Your task to perform on an android device: Search for vegetarian restaurants on Maps Image 0: 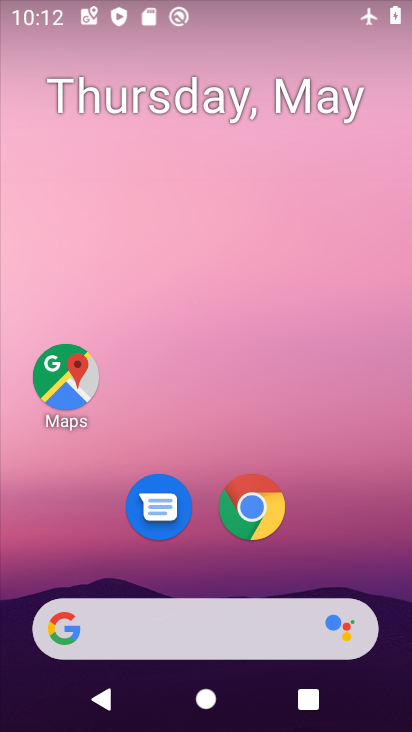
Step 0: drag from (241, 621) to (258, 185)
Your task to perform on an android device: Search for vegetarian restaurants on Maps Image 1: 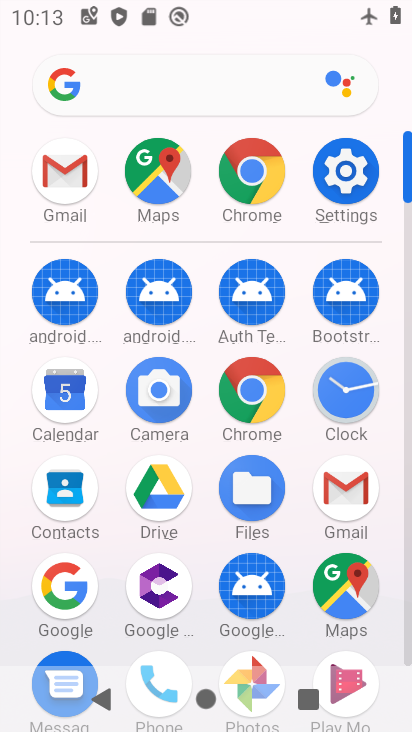
Step 1: drag from (244, 518) to (264, 88)
Your task to perform on an android device: Search for vegetarian restaurants on Maps Image 2: 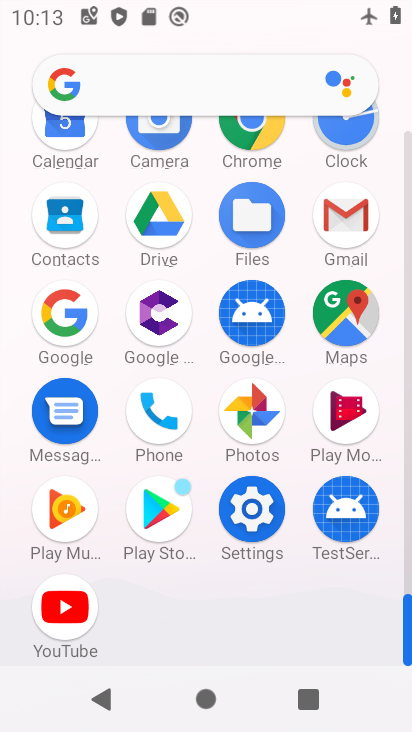
Step 2: click (355, 325)
Your task to perform on an android device: Search for vegetarian restaurants on Maps Image 3: 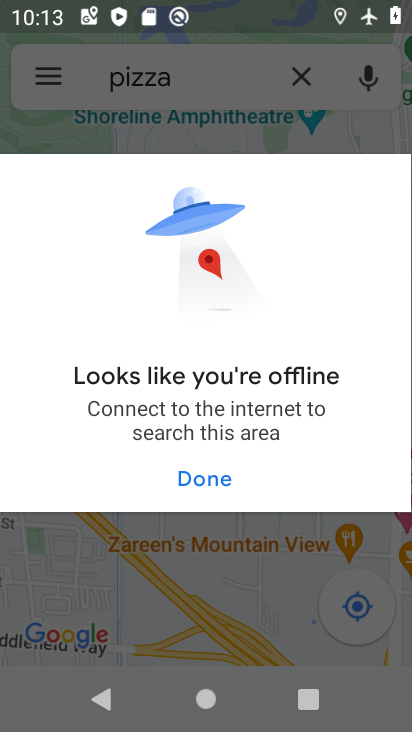
Step 3: click (197, 483)
Your task to perform on an android device: Search for vegetarian restaurants on Maps Image 4: 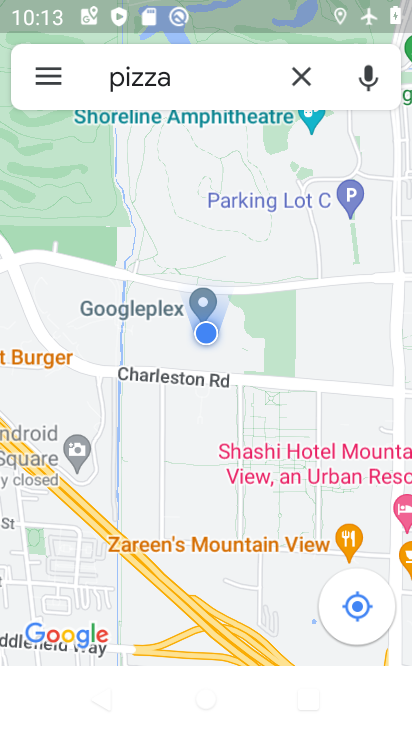
Step 4: click (297, 83)
Your task to perform on an android device: Search for vegetarian restaurants on Maps Image 5: 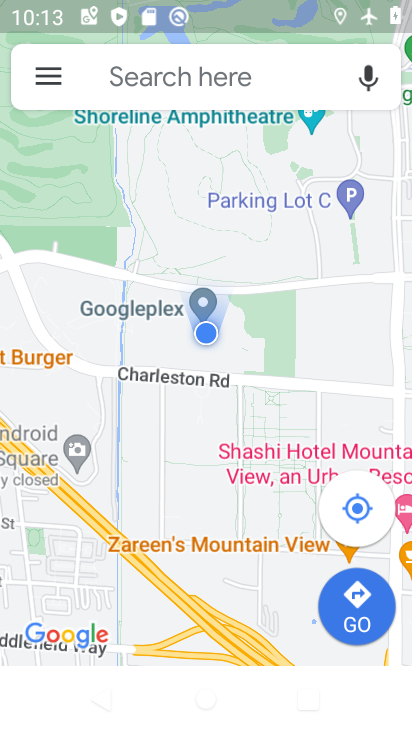
Step 5: click (197, 90)
Your task to perform on an android device: Search for vegetarian restaurants on Maps Image 6: 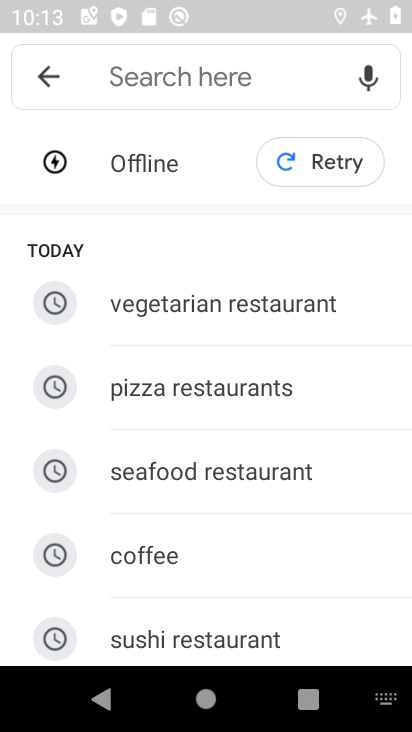
Step 6: click (173, 304)
Your task to perform on an android device: Search for vegetarian restaurants on Maps Image 7: 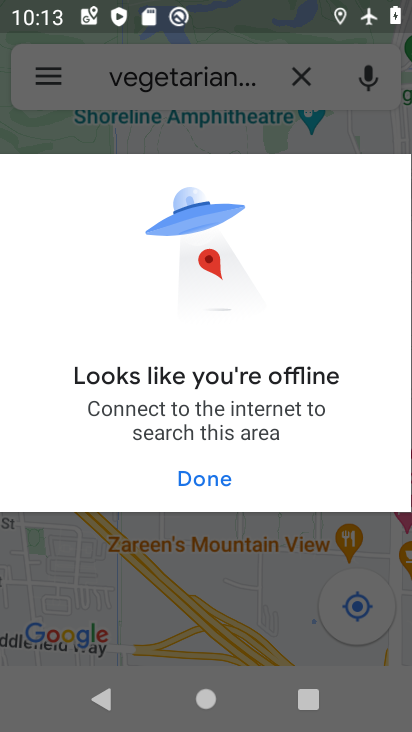
Step 7: task complete